Your task to perform on an android device: open app "Facebook" (install if not already installed), go to login, and select forgot password Image 0: 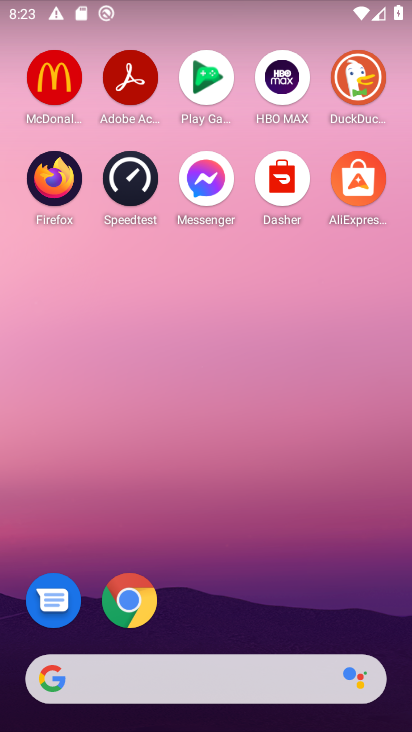
Step 0: drag from (190, 567) to (219, 249)
Your task to perform on an android device: open app "Facebook" (install if not already installed), go to login, and select forgot password Image 1: 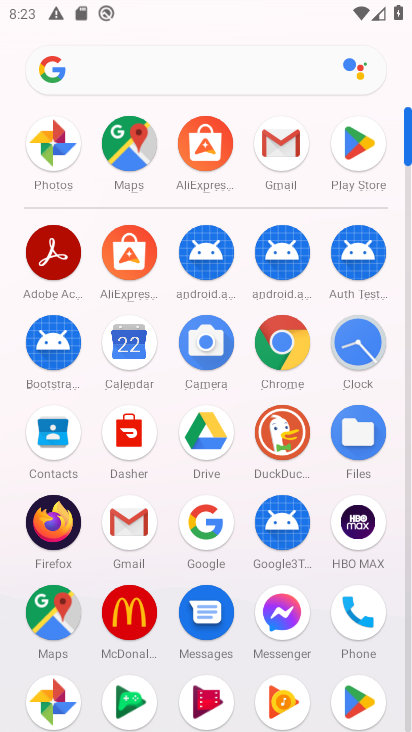
Step 1: click (356, 155)
Your task to perform on an android device: open app "Facebook" (install if not already installed), go to login, and select forgot password Image 2: 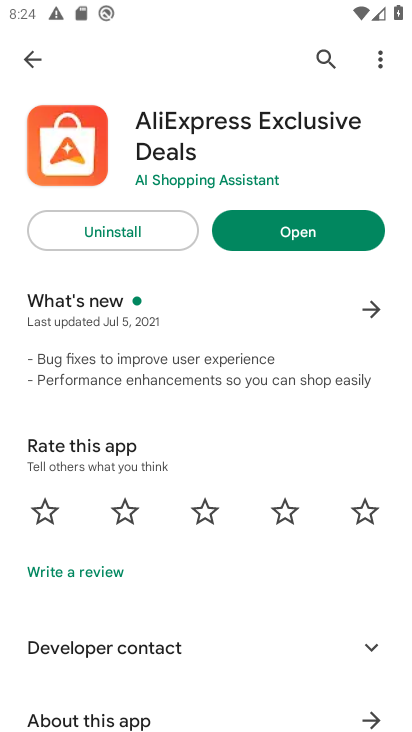
Step 2: click (318, 59)
Your task to perform on an android device: open app "Facebook" (install if not already installed), go to login, and select forgot password Image 3: 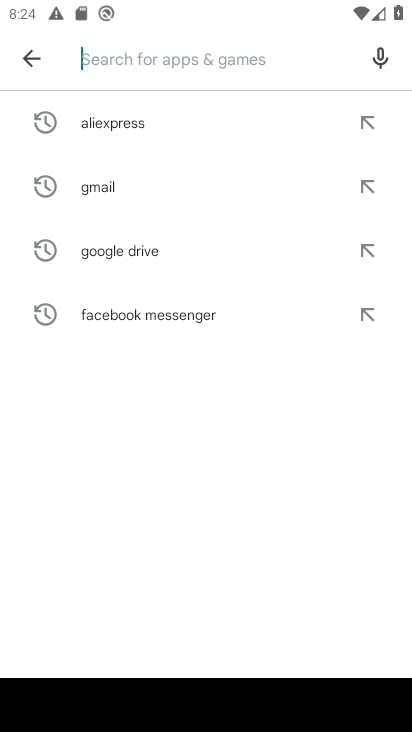
Step 3: type "Facebook"
Your task to perform on an android device: open app "Facebook" (install if not already installed), go to login, and select forgot password Image 4: 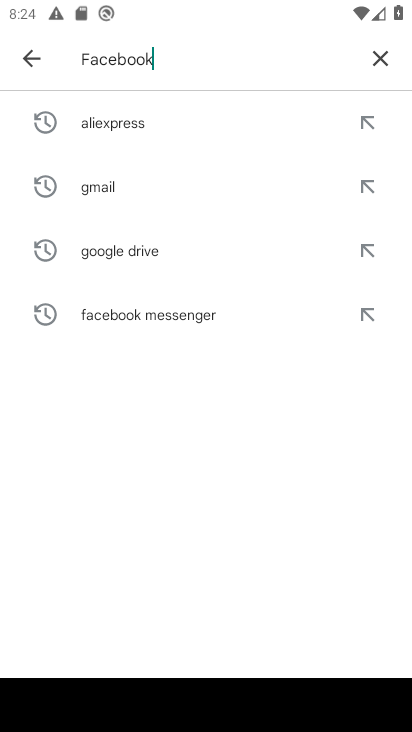
Step 4: type ""
Your task to perform on an android device: open app "Facebook" (install if not already installed), go to login, and select forgot password Image 5: 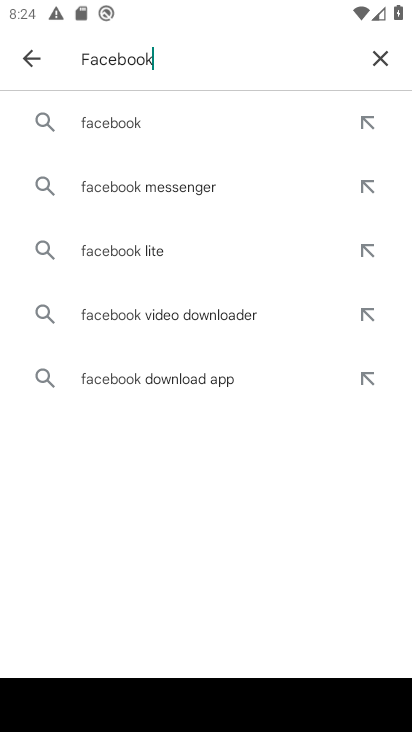
Step 5: click (83, 131)
Your task to perform on an android device: open app "Facebook" (install if not already installed), go to login, and select forgot password Image 6: 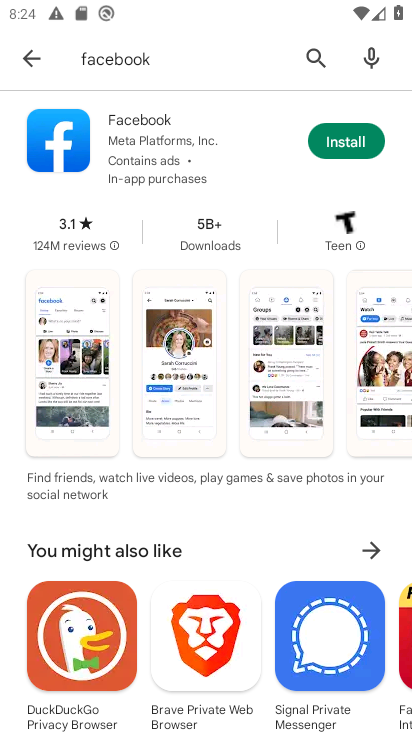
Step 6: click (335, 136)
Your task to perform on an android device: open app "Facebook" (install if not already installed), go to login, and select forgot password Image 7: 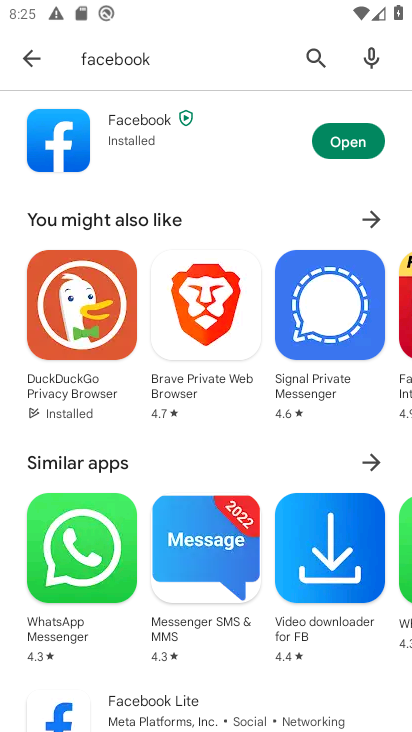
Step 7: click (335, 136)
Your task to perform on an android device: open app "Facebook" (install if not already installed), go to login, and select forgot password Image 8: 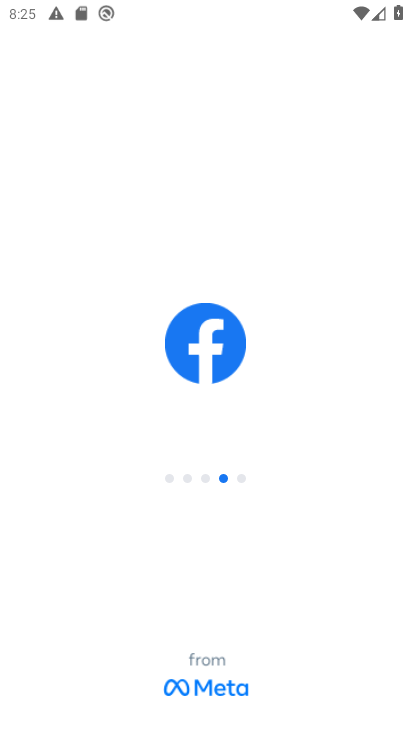
Step 8: task complete